Your task to perform on an android device: find photos in the google photos app Image 0: 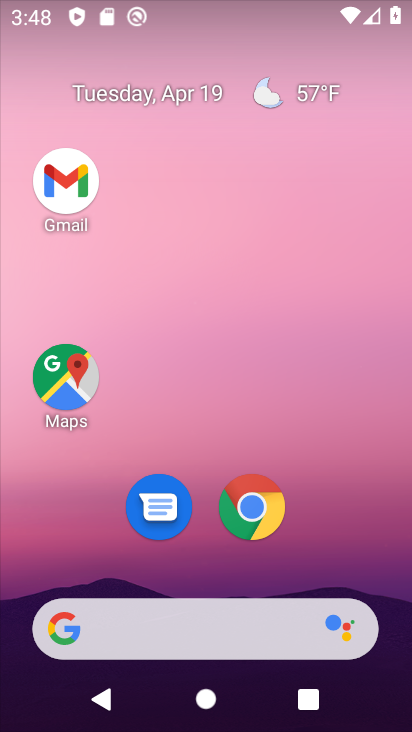
Step 0: drag from (227, 578) to (371, 48)
Your task to perform on an android device: find photos in the google photos app Image 1: 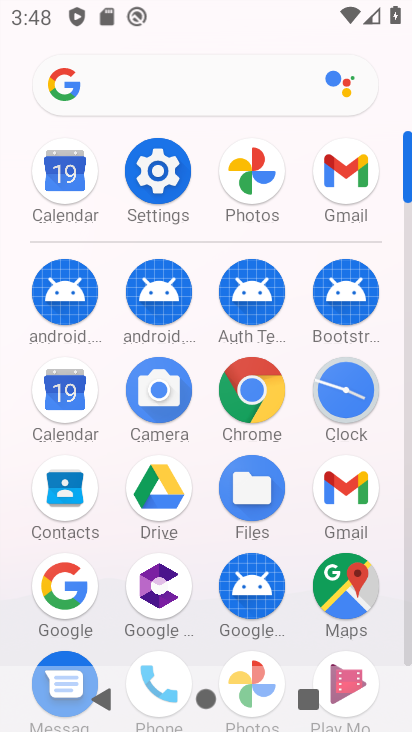
Step 1: click (254, 170)
Your task to perform on an android device: find photos in the google photos app Image 2: 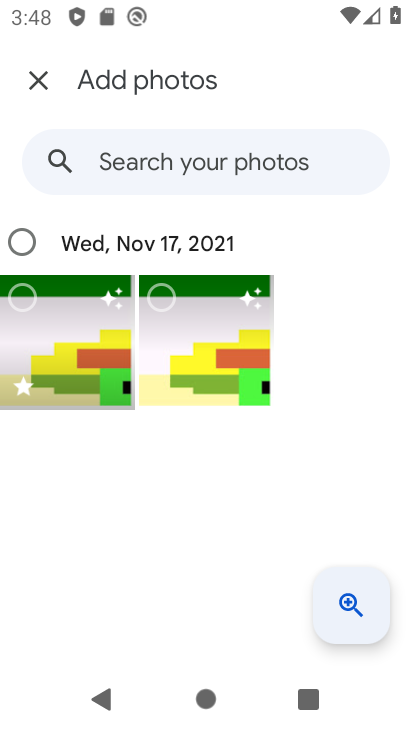
Step 2: task complete